Your task to perform on an android device: turn off sleep mode Image 0: 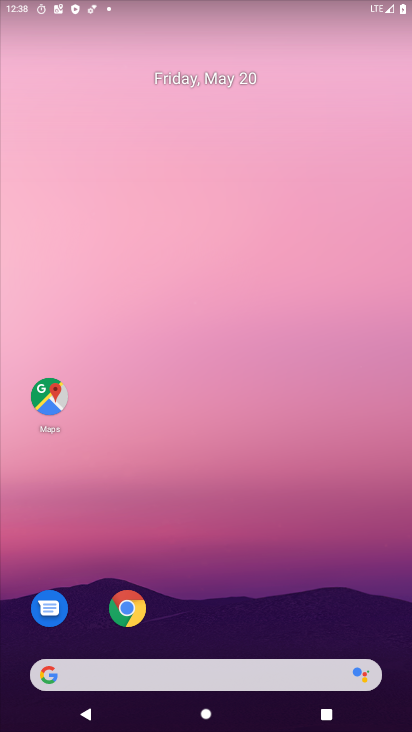
Step 0: drag from (241, 521) to (264, 61)
Your task to perform on an android device: turn off sleep mode Image 1: 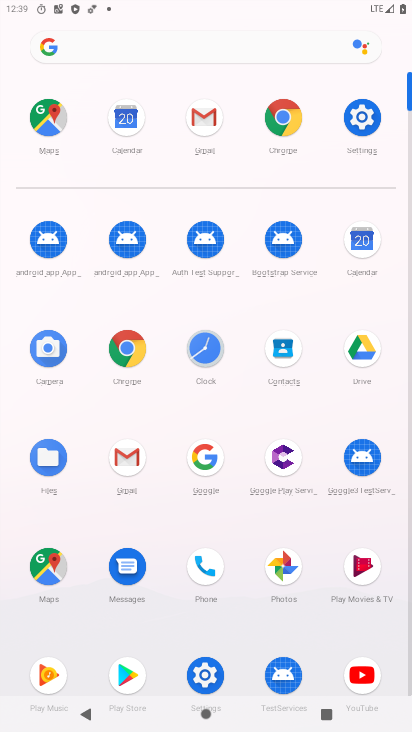
Step 1: click (207, 687)
Your task to perform on an android device: turn off sleep mode Image 2: 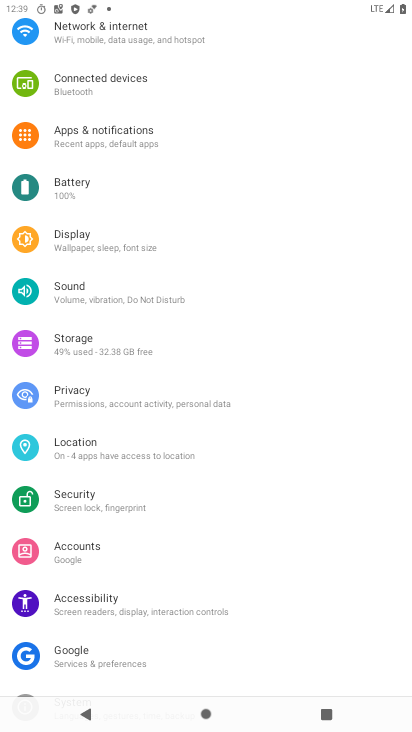
Step 2: drag from (207, 102) to (266, 555)
Your task to perform on an android device: turn off sleep mode Image 3: 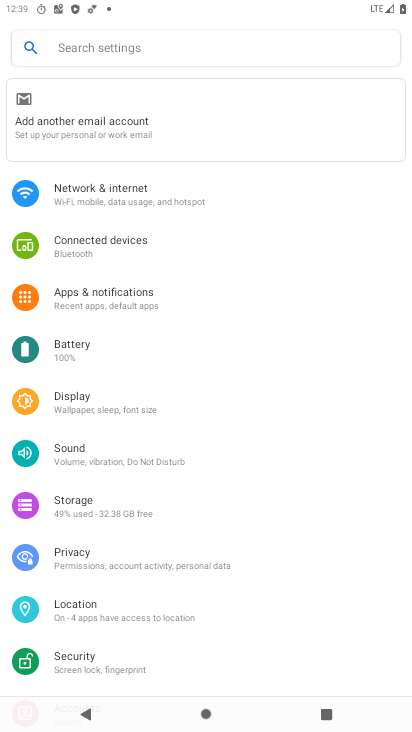
Step 3: click (193, 50)
Your task to perform on an android device: turn off sleep mode Image 4: 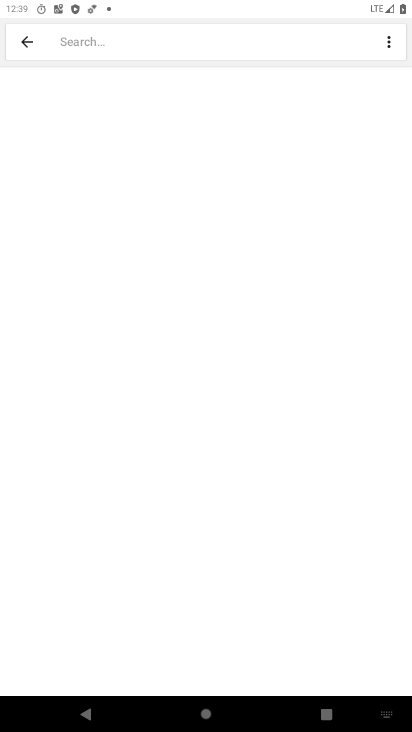
Step 4: type "sleep mode"
Your task to perform on an android device: turn off sleep mode Image 5: 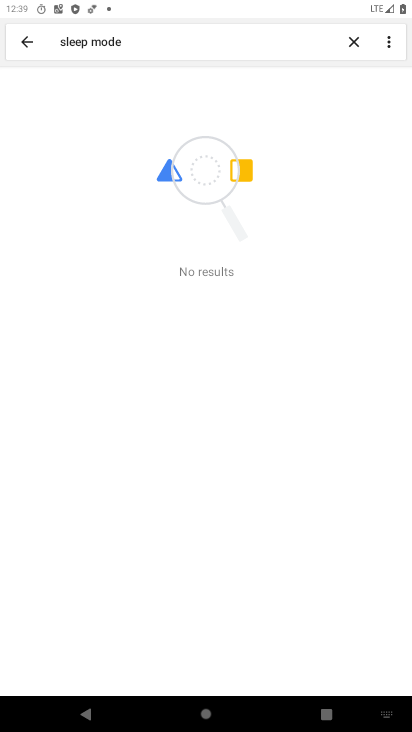
Step 5: task complete